Your task to perform on an android device: turn off wifi Image 0: 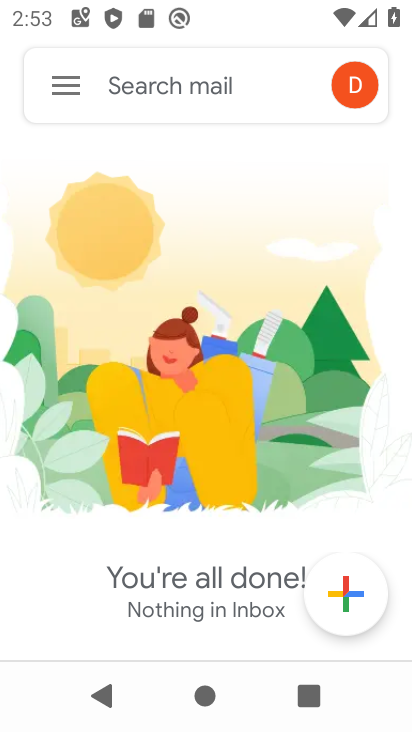
Step 0: press home button
Your task to perform on an android device: turn off wifi Image 1: 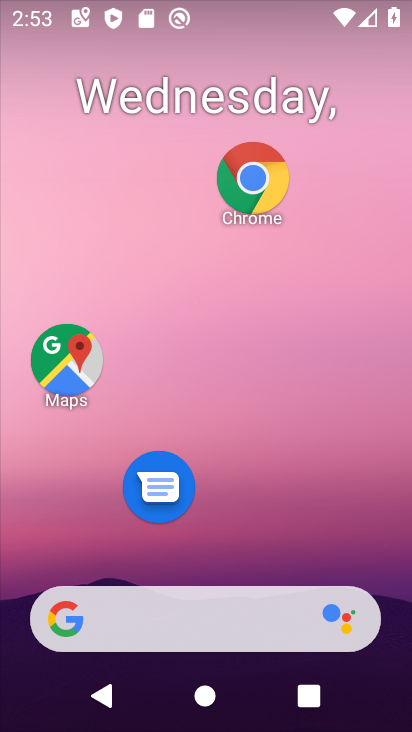
Step 1: drag from (249, 532) to (272, 104)
Your task to perform on an android device: turn off wifi Image 2: 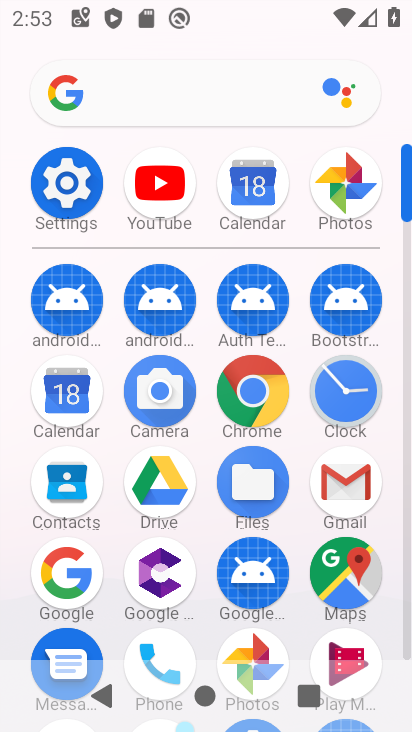
Step 2: click (77, 194)
Your task to perform on an android device: turn off wifi Image 3: 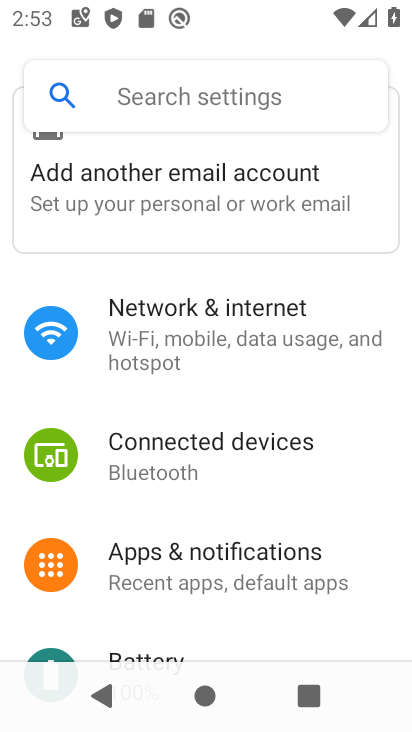
Step 3: click (235, 317)
Your task to perform on an android device: turn off wifi Image 4: 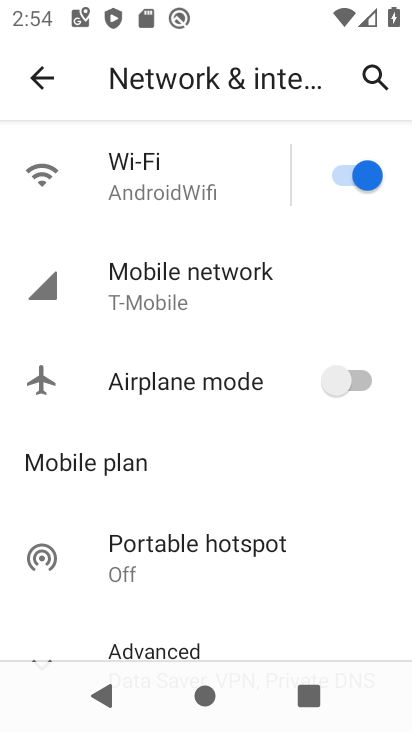
Step 4: click (339, 166)
Your task to perform on an android device: turn off wifi Image 5: 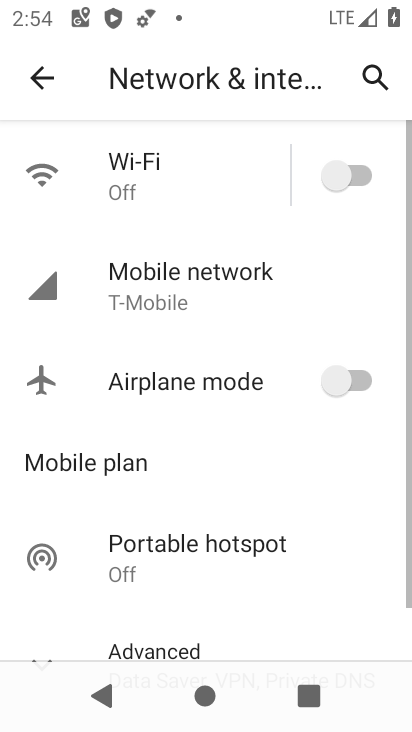
Step 5: task complete